Your task to perform on an android device: What's on my calendar tomorrow? Image 0: 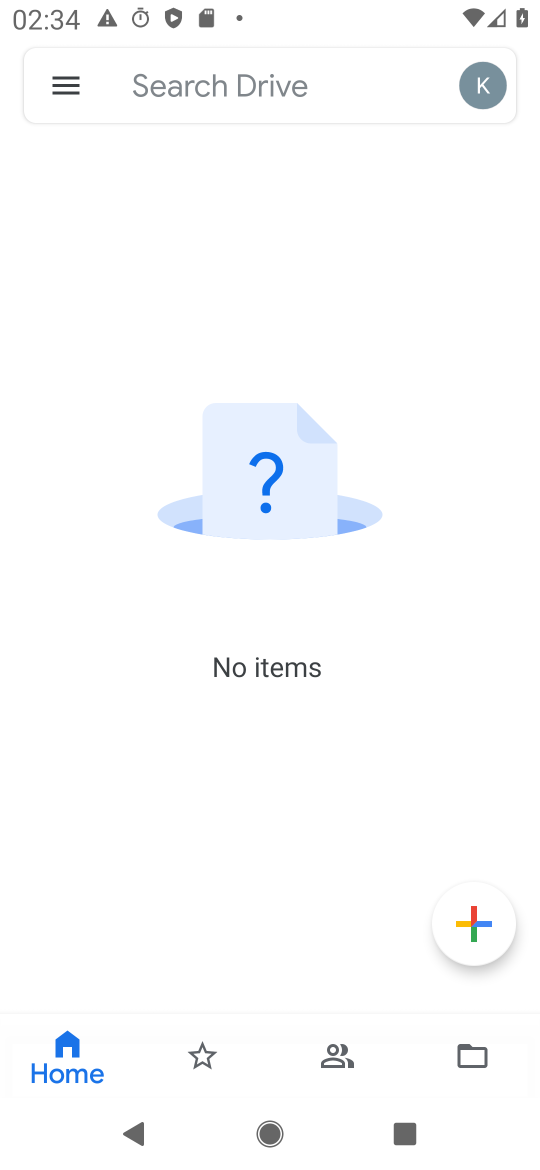
Step 0: press home button
Your task to perform on an android device: What's on my calendar tomorrow? Image 1: 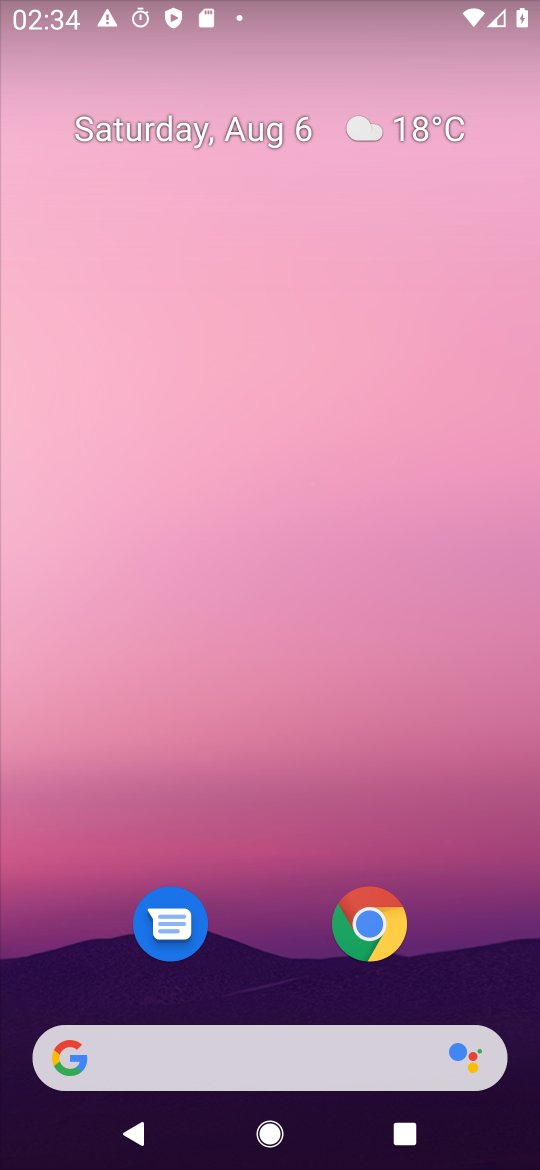
Step 1: drag from (253, 1076) to (245, 4)
Your task to perform on an android device: What's on my calendar tomorrow? Image 2: 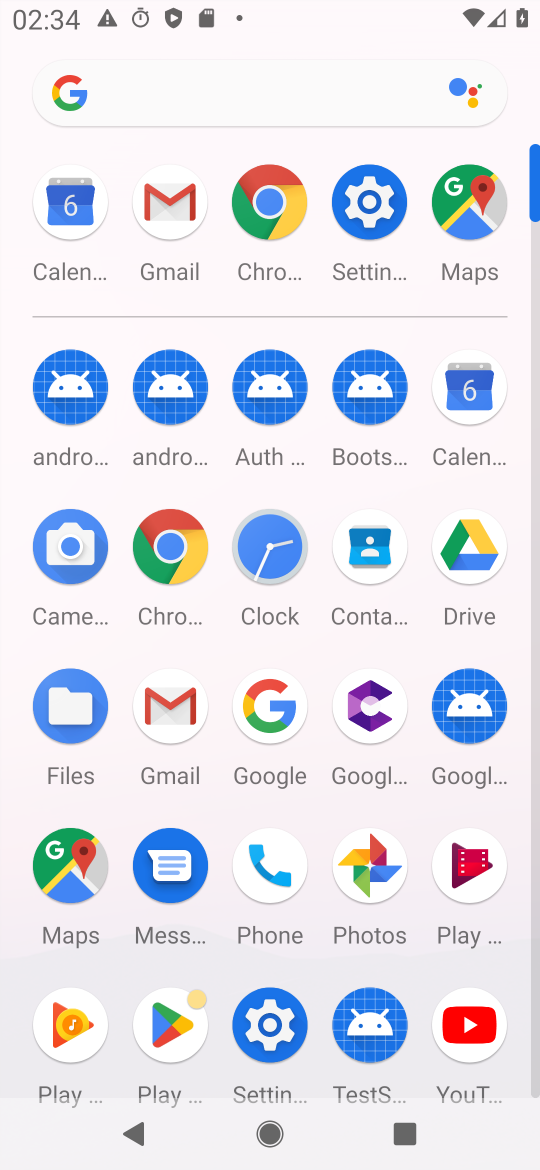
Step 2: click (463, 383)
Your task to perform on an android device: What's on my calendar tomorrow? Image 3: 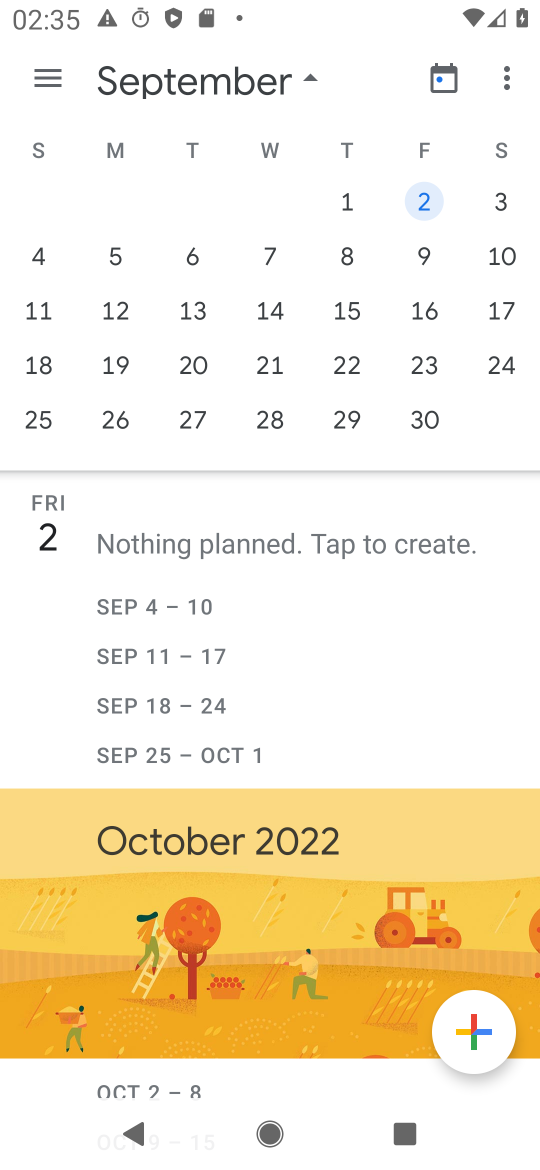
Step 3: drag from (27, 209) to (536, 194)
Your task to perform on an android device: What's on my calendar tomorrow? Image 4: 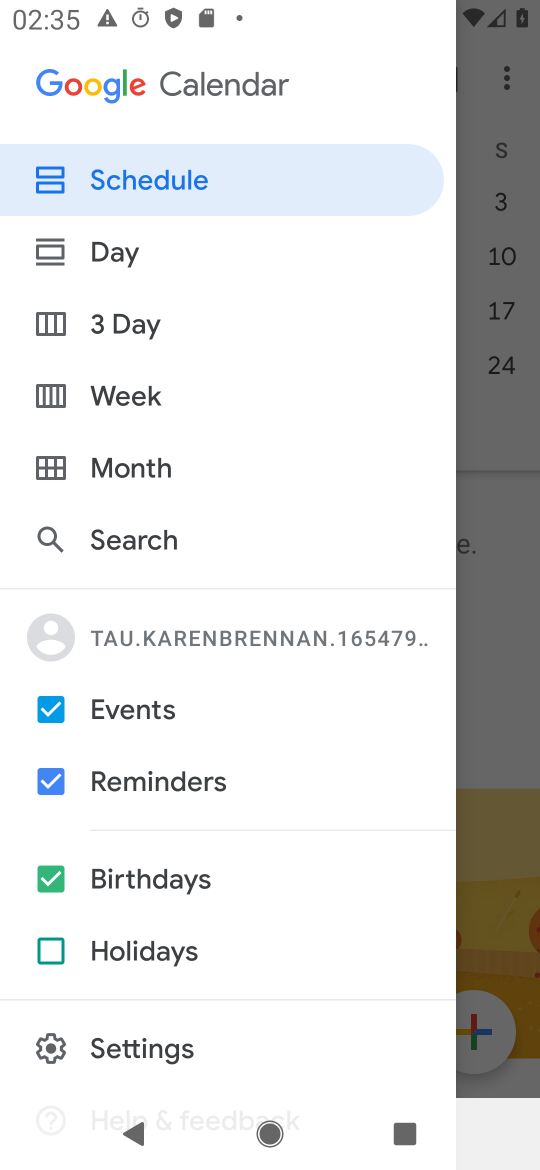
Step 4: drag from (513, 220) to (12, 396)
Your task to perform on an android device: What's on my calendar tomorrow? Image 5: 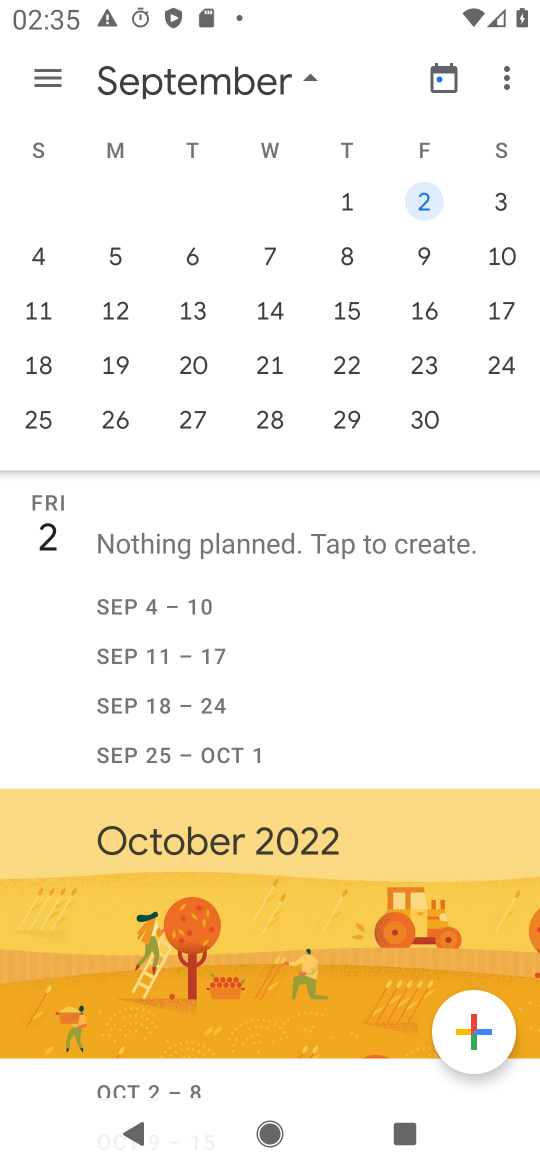
Step 5: drag from (68, 337) to (507, 337)
Your task to perform on an android device: What's on my calendar tomorrow? Image 6: 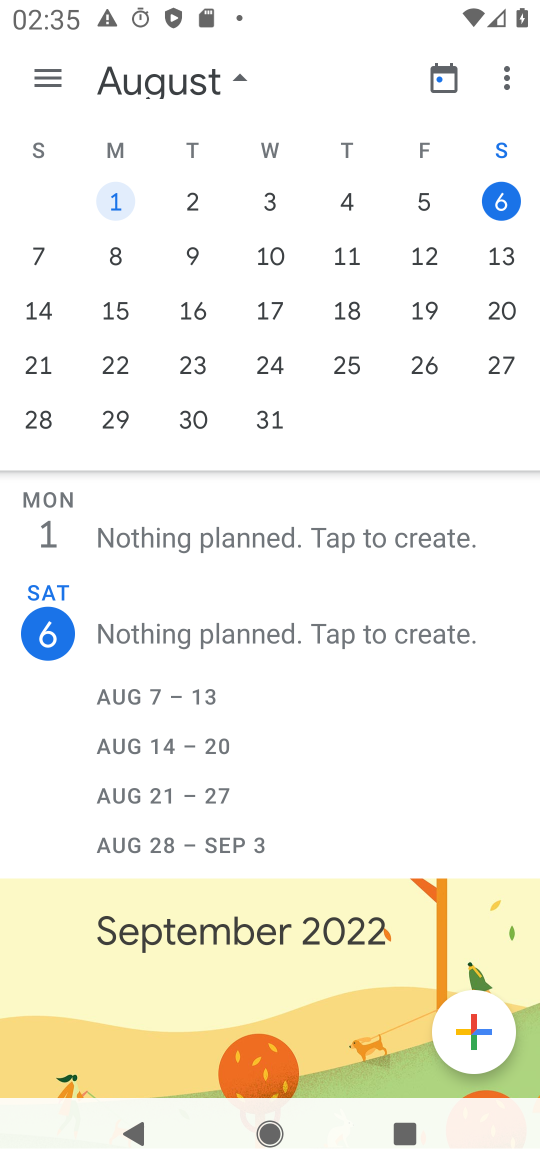
Step 6: click (29, 254)
Your task to perform on an android device: What's on my calendar tomorrow? Image 7: 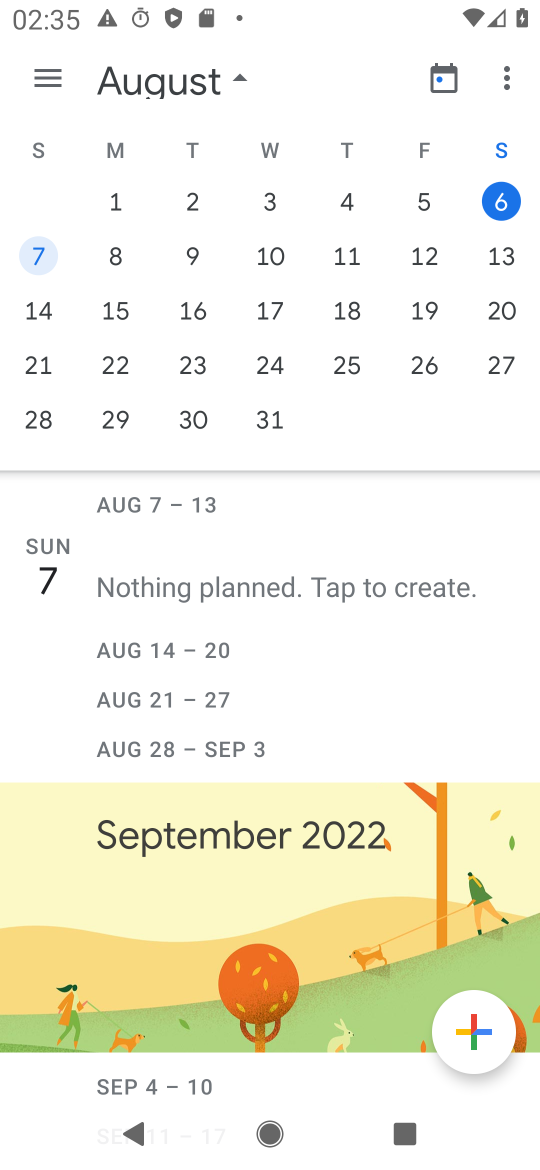
Step 7: task complete